Your task to perform on an android device: Check the news Image 0: 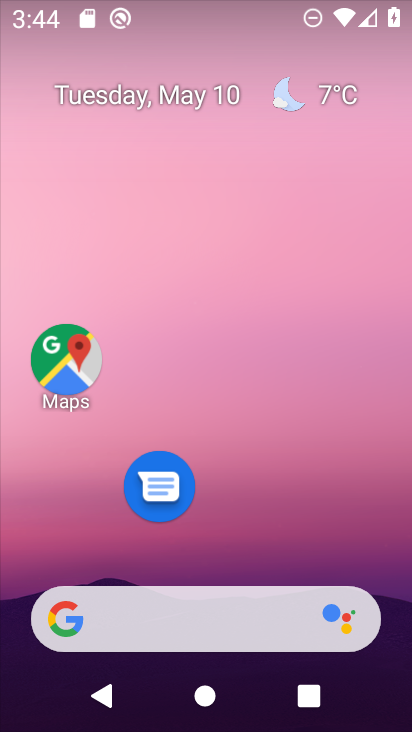
Step 0: drag from (319, 539) to (260, 0)
Your task to perform on an android device: Check the news Image 1: 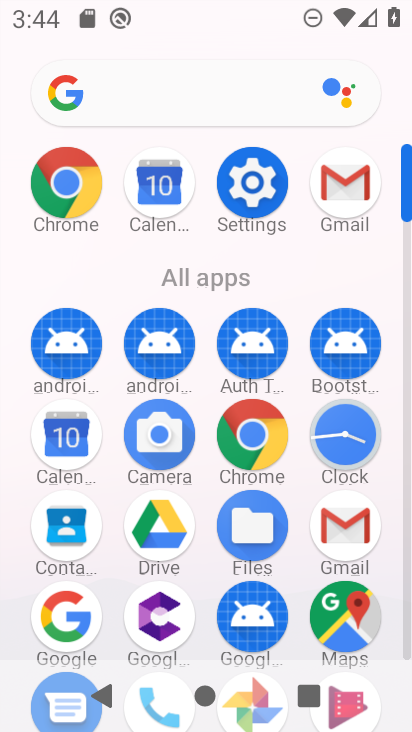
Step 1: drag from (6, 566) to (12, 244)
Your task to perform on an android device: Check the news Image 2: 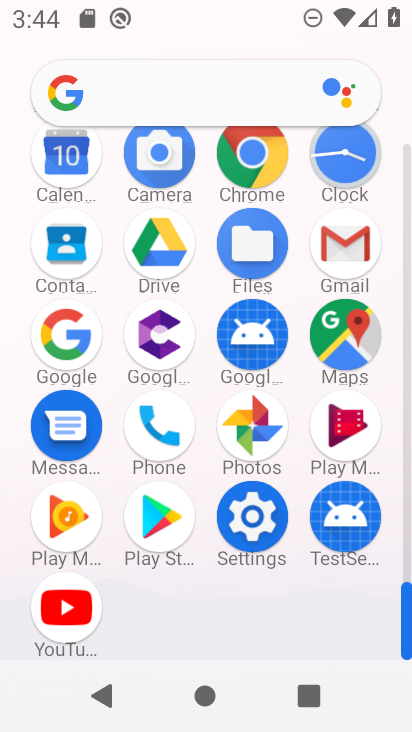
Step 2: click (248, 150)
Your task to perform on an android device: Check the news Image 3: 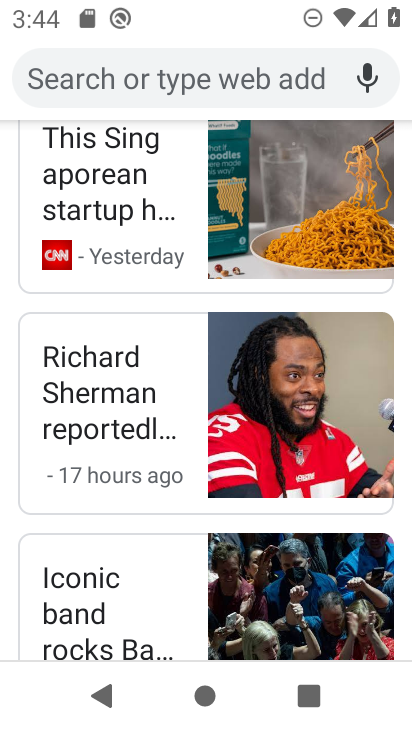
Step 3: click (182, 82)
Your task to perform on an android device: Check the news Image 4: 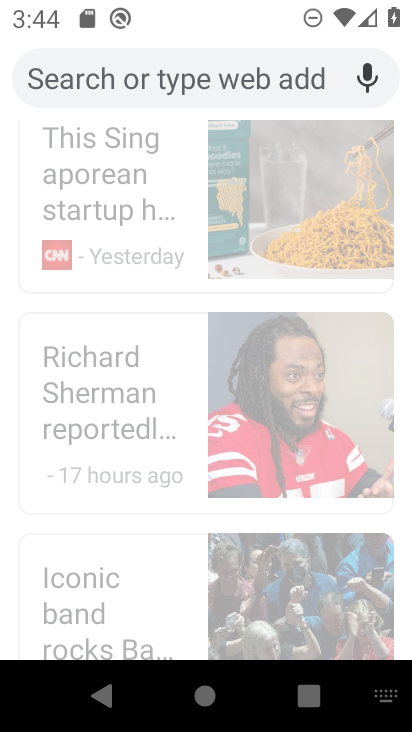
Step 4: click (175, 70)
Your task to perform on an android device: Check the news Image 5: 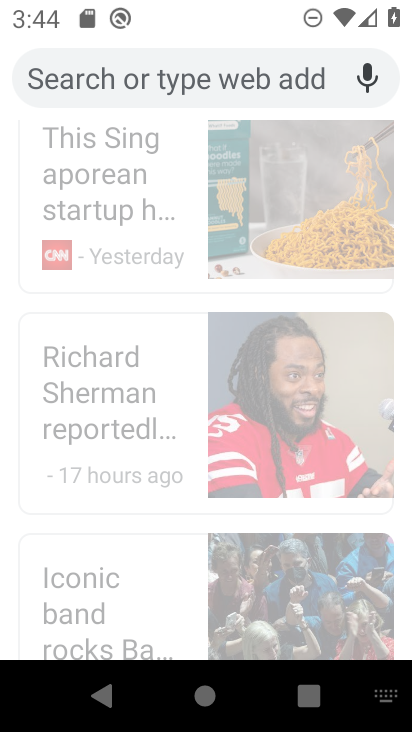
Step 5: type "Check the news"
Your task to perform on an android device: Check the news Image 6: 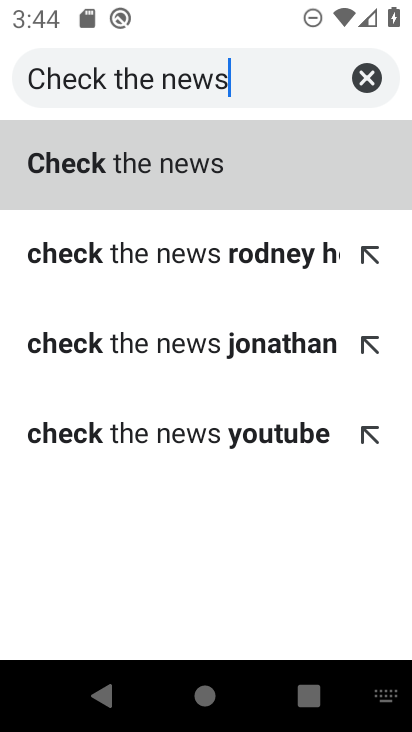
Step 6: click (184, 161)
Your task to perform on an android device: Check the news Image 7: 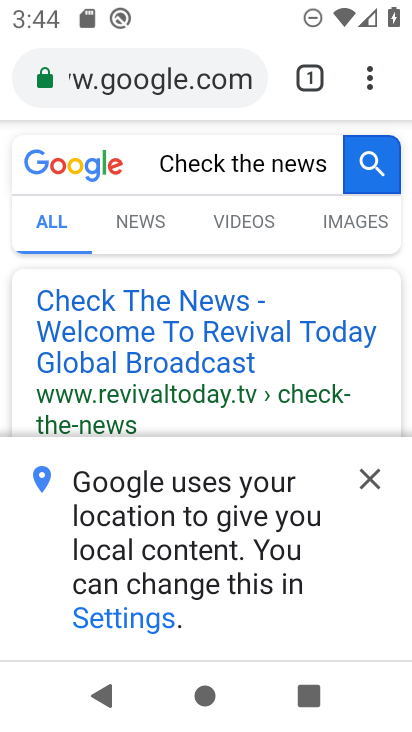
Step 7: click (376, 469)
Your task to perform on an android device: Check the news Image 8: 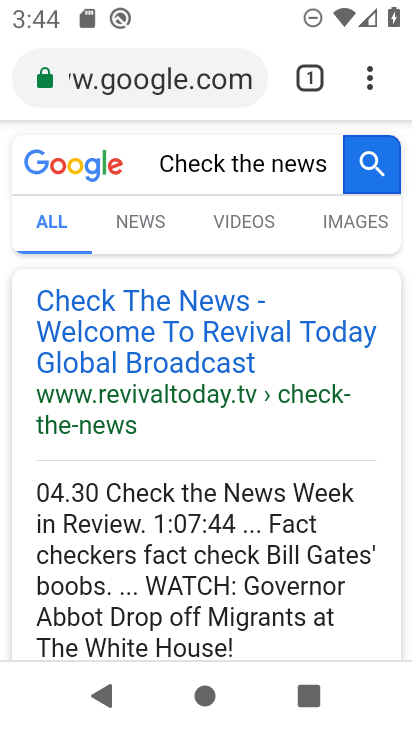
Step 8: drag from (224, 562) to (224, 238)
Your task to perform on an android device: Check the news Image 9: 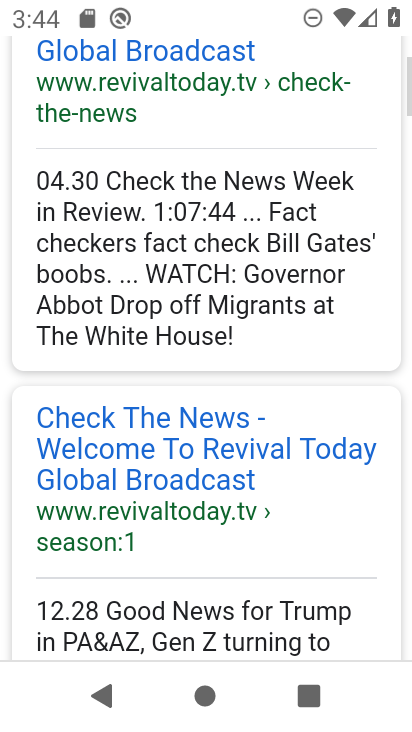
Step 9: drag from (189, 211) to (187, 567)
Your task to perform on an android device: Check the news Image 10: 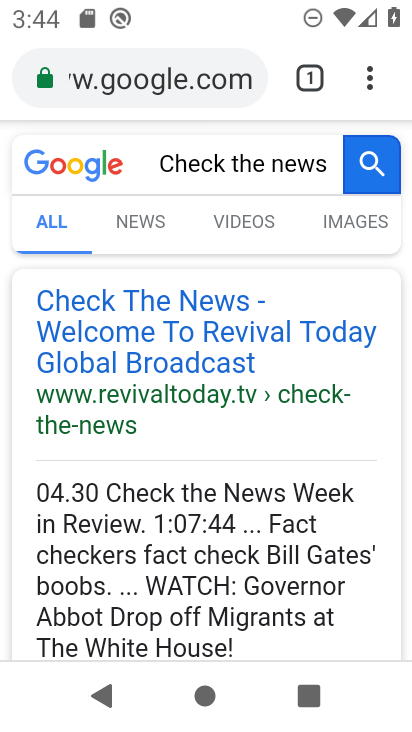
Step 10: click (138, 212)
Your task to perform on an android device: Check the news Image 11: 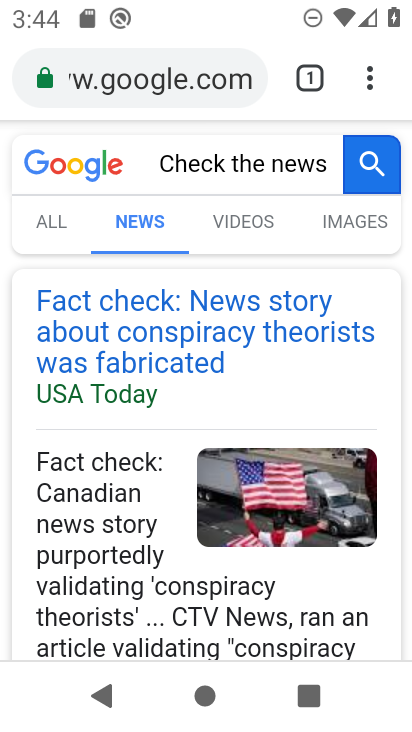
Step 11: task complete